Your task to perform on an android device: toggle show notifications on the lock screen Image 0: 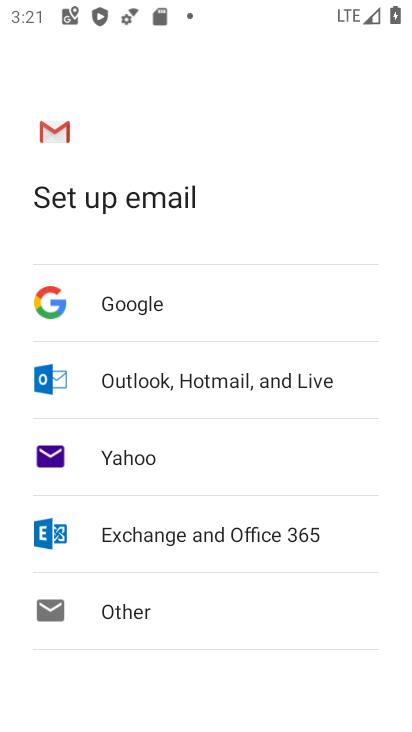
Step 0: press home button
Your task to perform on an android device: toggle show notifications on the lock screen Image 1: 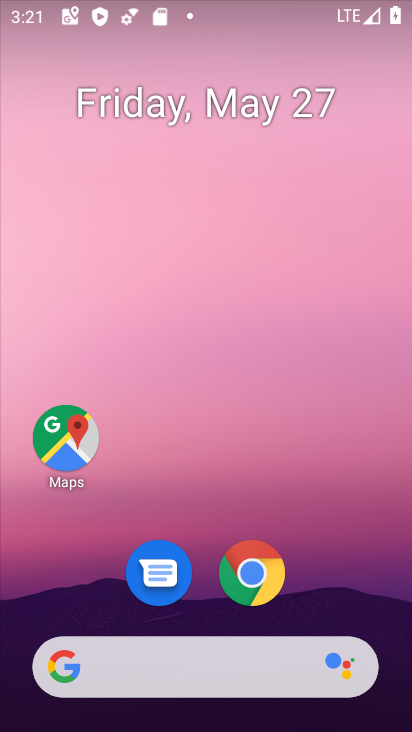
Step 1: drag from (199, 484) to (227, 0)
Your task to perform on an android device: toggle show notifications on the lock screen Image 2: 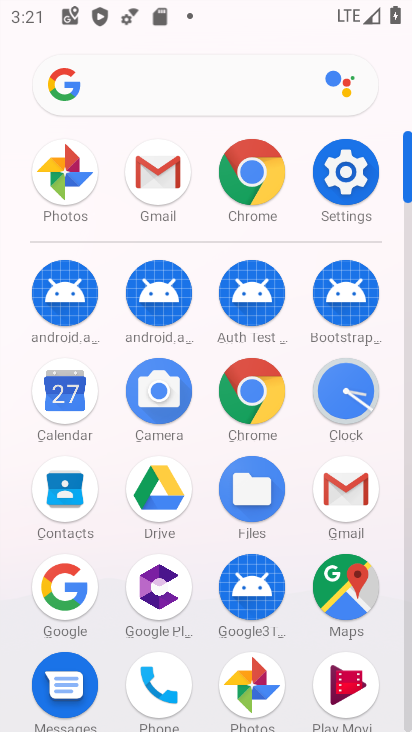
Step 2: click (328, 173)
Your task to perform on an android device: toggle show notifications on the lock screen Image 3: 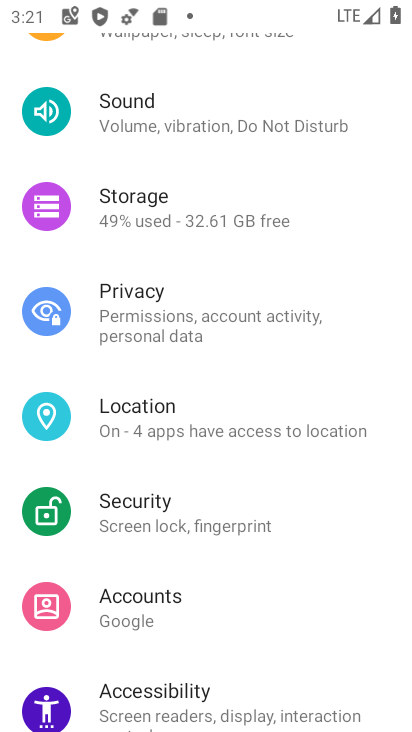
Step 3: drag from (250, 179) to (256, 626)
Your task to perform on an android device: toggle show notifications on the lock screen Image 4: 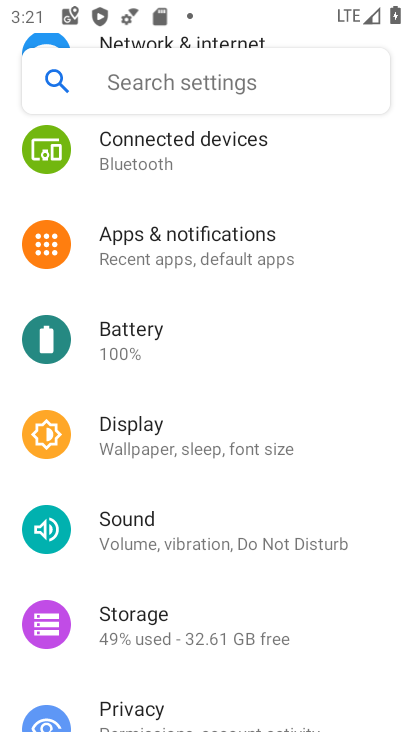
Step 4: click (243, 242)
Your task to perform on an android device: toggle show notifications on the lock screen Image 5: 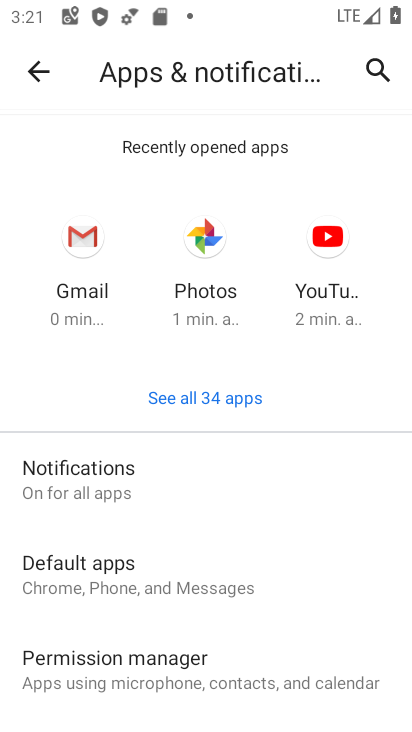
Step 5: click (178, 470)
Your task to perform on an android device: toggle show notifications on the lock screen Image 6: 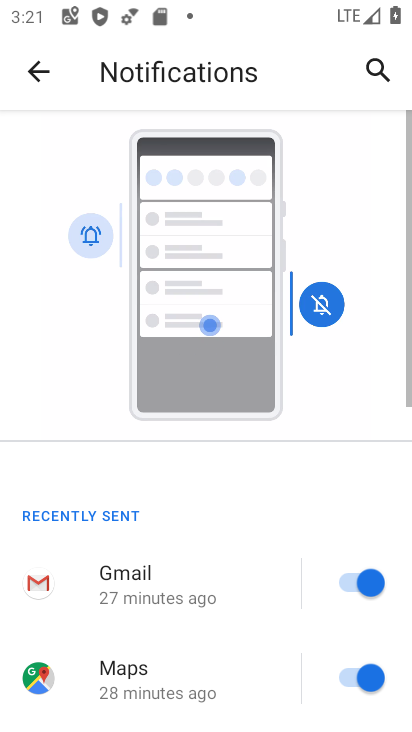
Step 6: drag from (206, 605) to (280, 179)
Your task to perform on an android device: toggle show notifications on the lock screen Image 7: 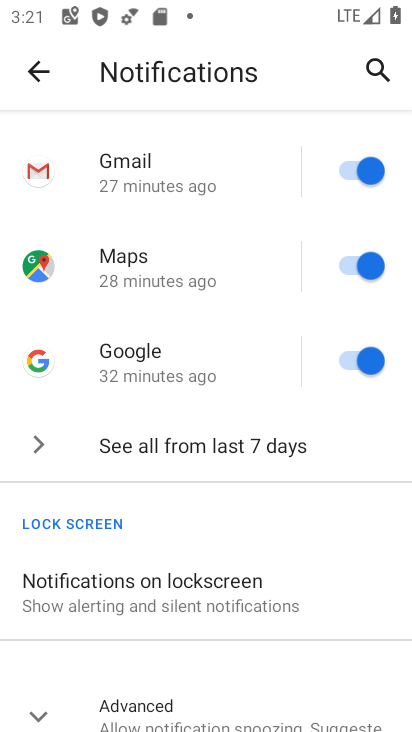
Step 7: click (206, 589)
Your task to perform on an android device: toggle show notifications on the lock screen Image 8: 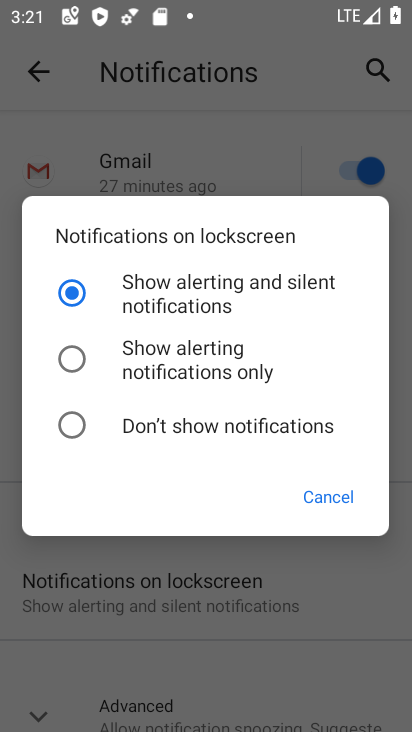
Step 8: click (69, 417)
Your task to perform on an android device: toggle show notifications on the lock screen Image 9: 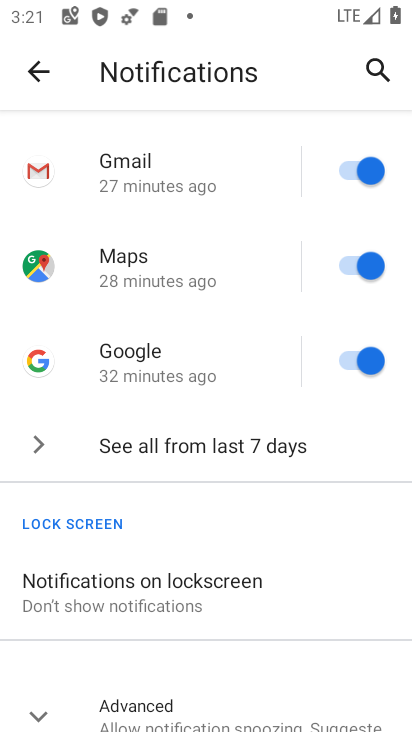
Step 9: task complete